Your task to perform on an android device: See recent photos Image 0: 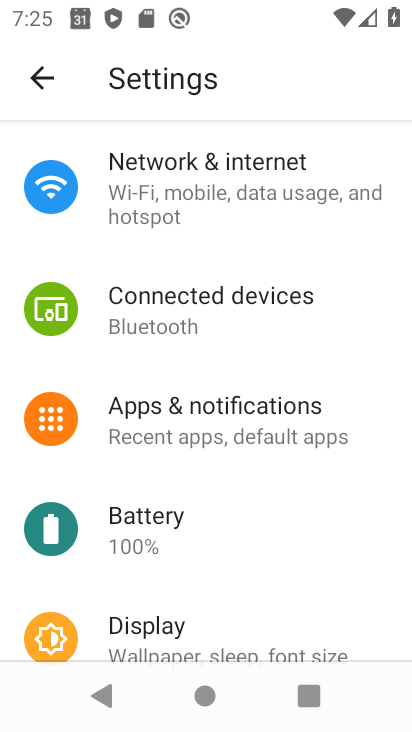
Step 0: press home button
Your task to perform on an android device: See recent photos Image 1: 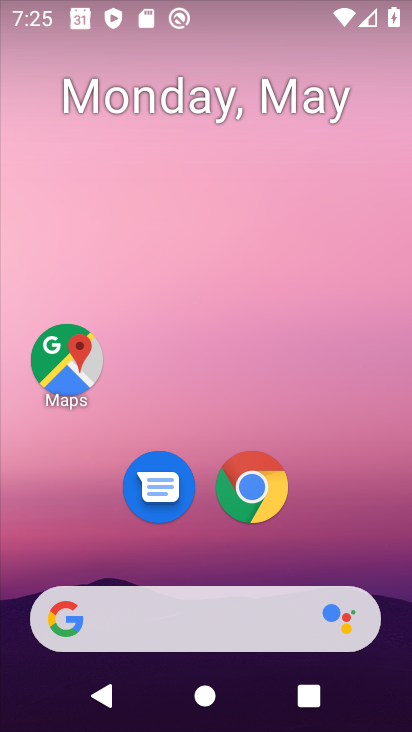
Step 1: drag from (257, 654) to (266, 1)
Your task to perform on an android device: See recent photos Image 2: 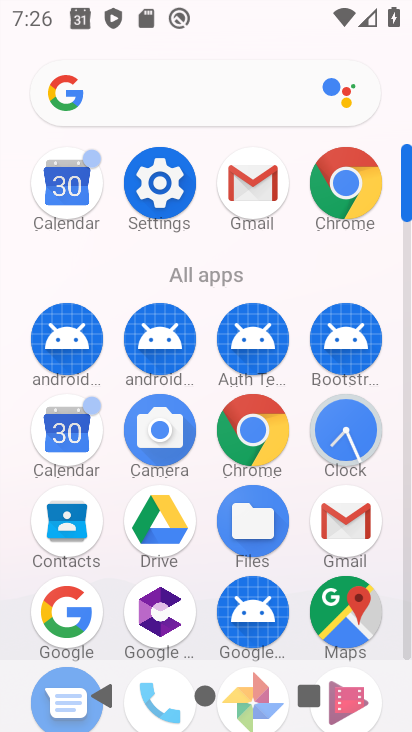
Step 2: drag from (202, 565) to (216, 389)
Your task to perform on an android device: See recent photos Image 3: 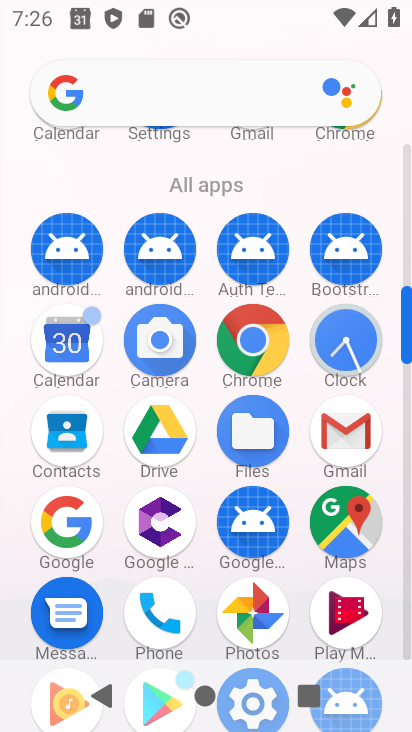
Step 3: click (249, 625)
Your task to perform on an android device: See recent photos Image 4: 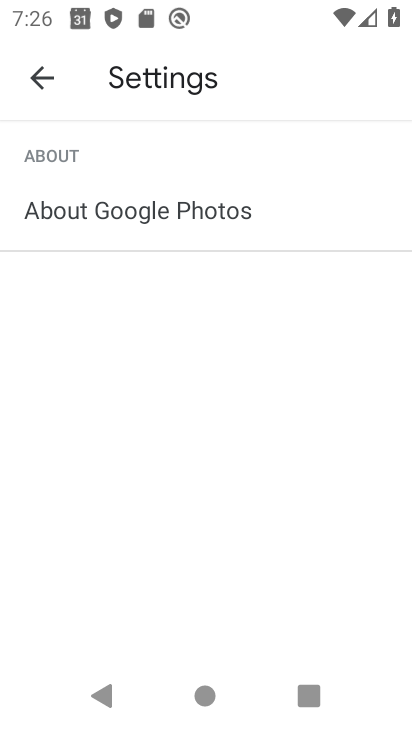
Step 4: click (31, 72)
Your task to perform on an android device: See recent photos Image 5: 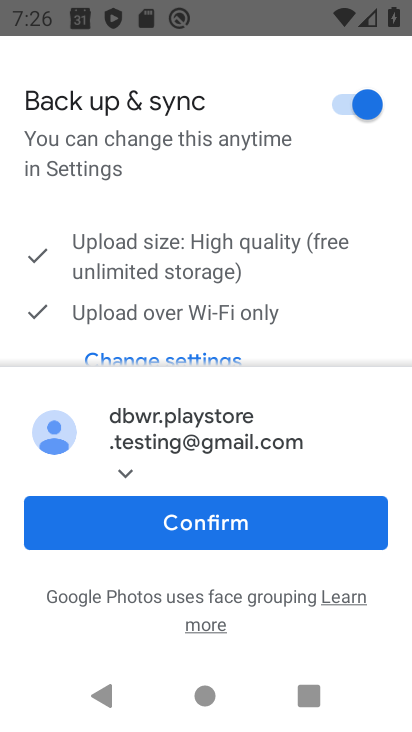
Step 5: click (195, 537)
Your task to perform on an android device: See recent photos Image 6: 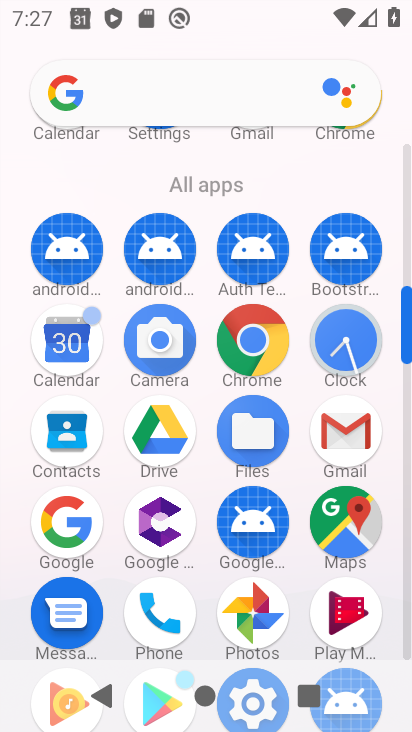
Step 6: click (255, 604)
Your task to perform on an android device: See recent photos Image 7: 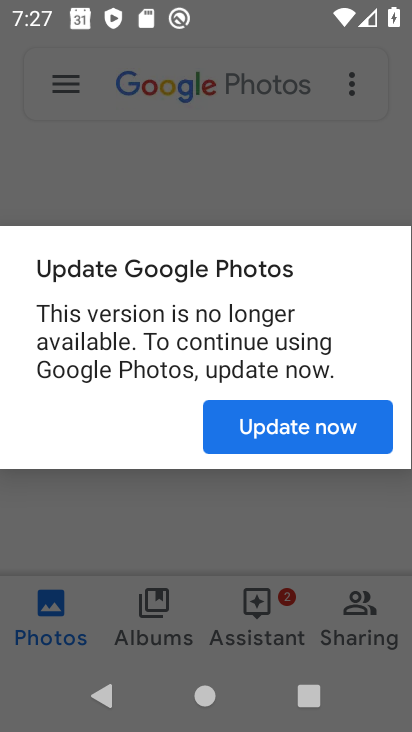
Step 7: click (326, 433)
Your task to perform on an android device: See recent photos Image 8: 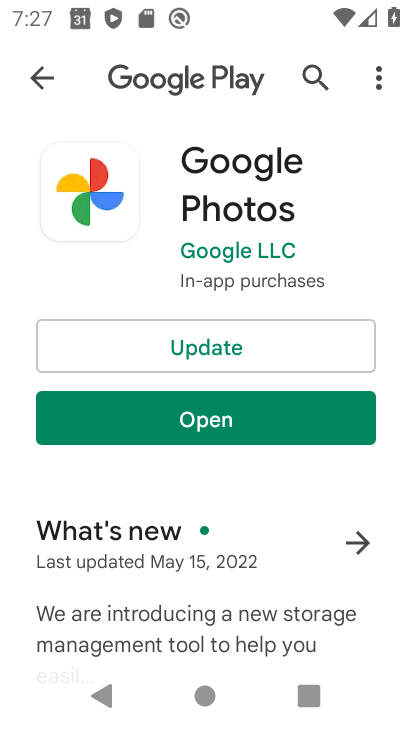
Step 8: click (196, 334)
Your task to perform on an android device: See recent photos Image 9: 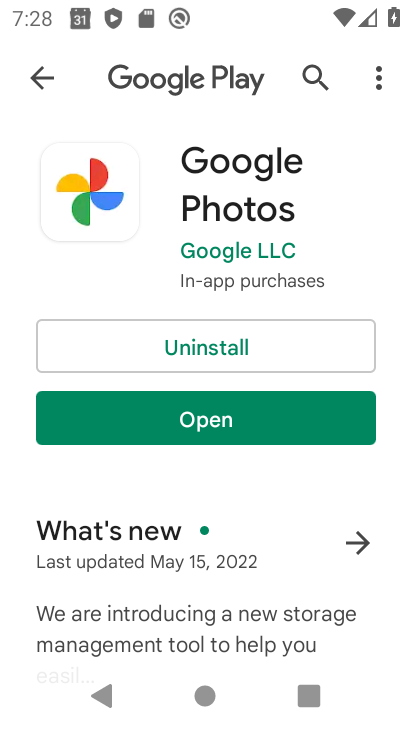
Step 9: click (172, 434)
Your task to perform on an android device: See recent photos Image 10: 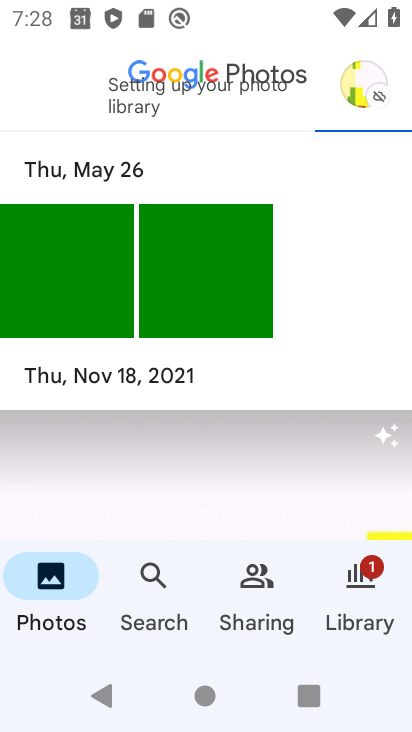
Step 10: task complete